Your task to perform on an android device: find photos in the google photos app Image 0: 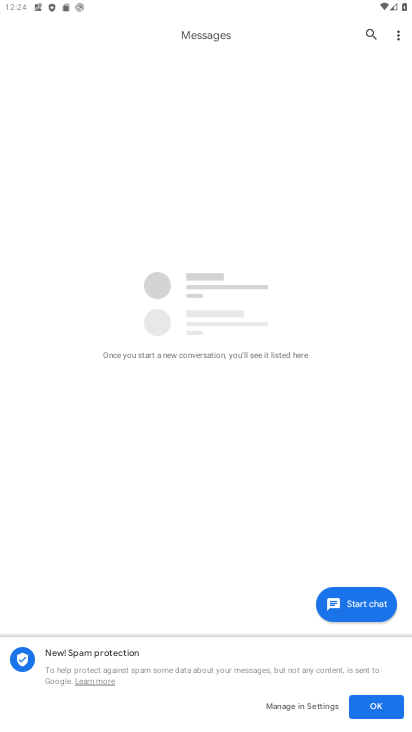
Step 0: press home button
Your task to perform on an android device: find photos in the google photos app Image 1: 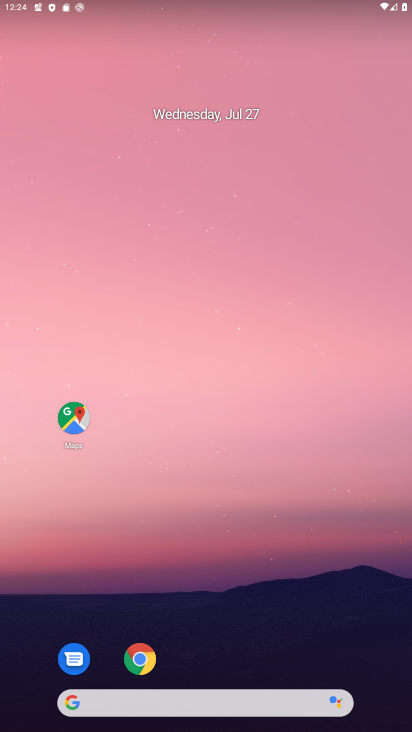
Step 1: drag from (207, 669) to (192, 5)
Your task to perform on an android device: find photos in the google photos app Image 2: 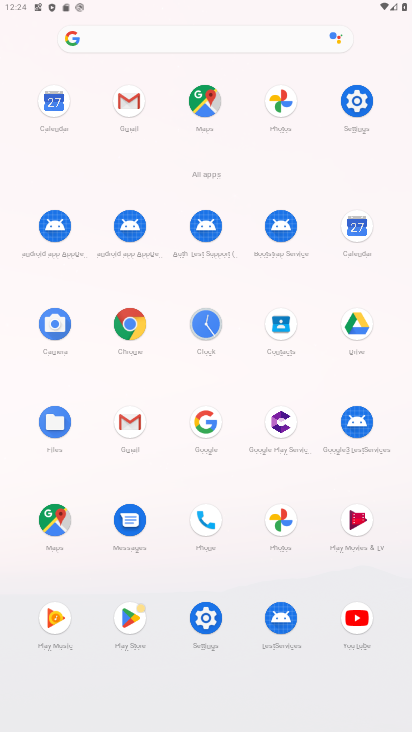
Step 2: click (279, 517)
Your task to perform on an android device: find photos in the google photos app Image 3: 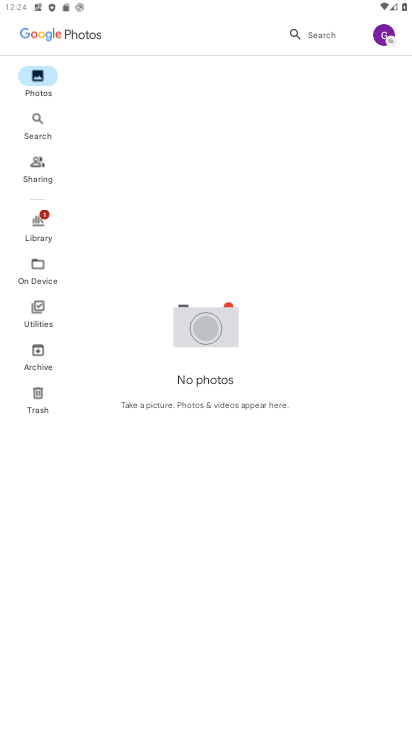
Step 3: task complete